Your task to perform on an android device: check the backup settings in the google photos Image 0: 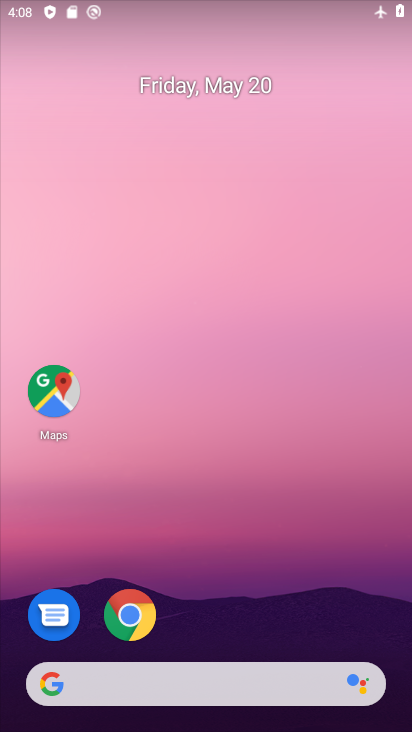
Step 0: drag from (211, 578) to (254, 68)
Your task to perform on an android device: check the backup settings in the google photos Image 1: 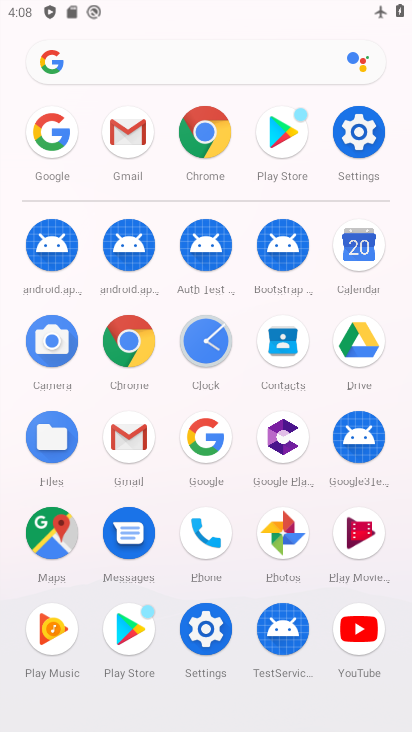
Step 1: drag from (153, 512) to (153, 180)
Your task to perform on an android device: check the backup settings in the google photos Image 2: 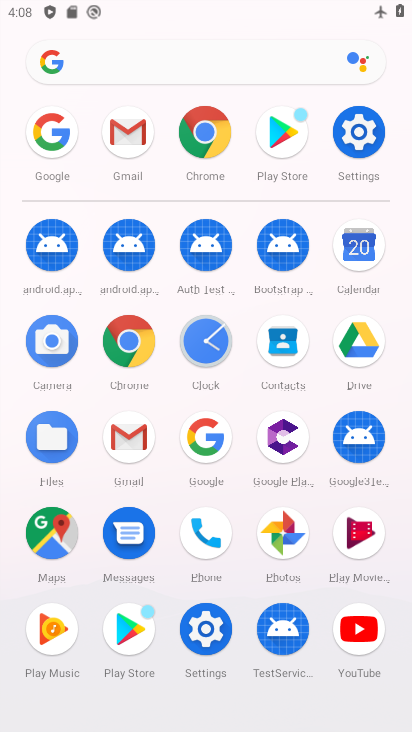
Step 2: click (280, 554)
Your task to perform on an android device: check the backup settings in the google photos Image 3: 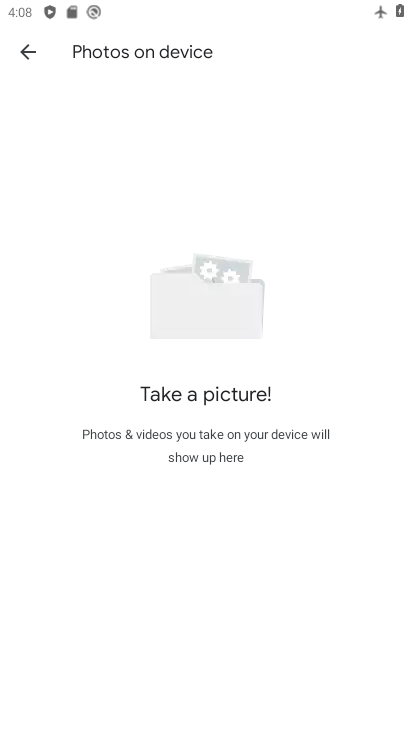
Step 3: click (33, 48)
Your task to perform on an android device: check the backup settings in the google photos Image 4: 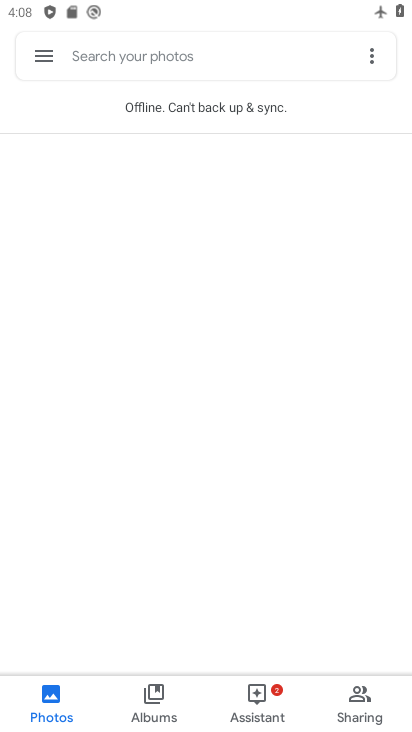
Step 4: click (46, 59)
Your task to perform on an android device: check the backup settings in the google photos Image 5: 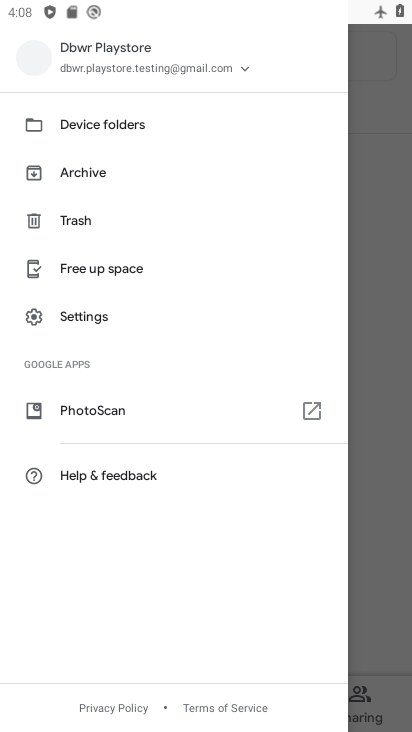
Step 5: click (108, 325)
Your task to perform on an android device: check the backup settings in the google photos Image 6: 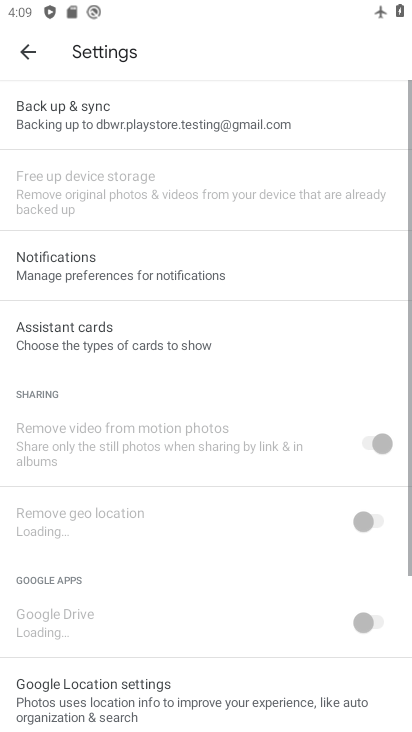
Step 6: click (122, 122)
Your task to perform on an android device: check the backup settings in the google photos Image 7: 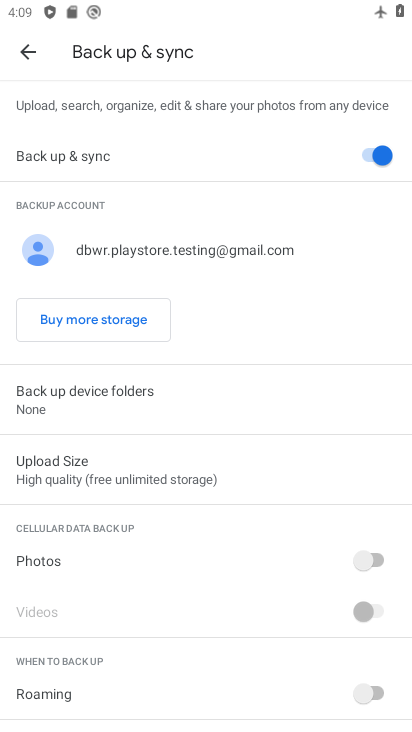
Step 7: task complete